Your task to perform on an android device: Open Yahoo.com Image 0: 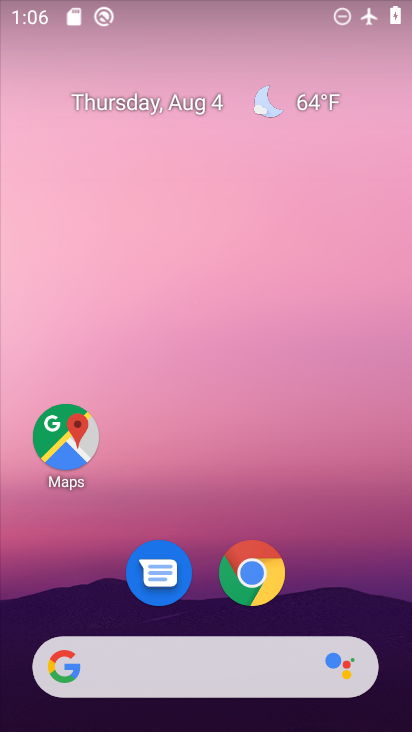
Step 0: drag from (323, 582) to (292, 170)
Your task to perform on an android device: Open Yahoo.com Image 1: 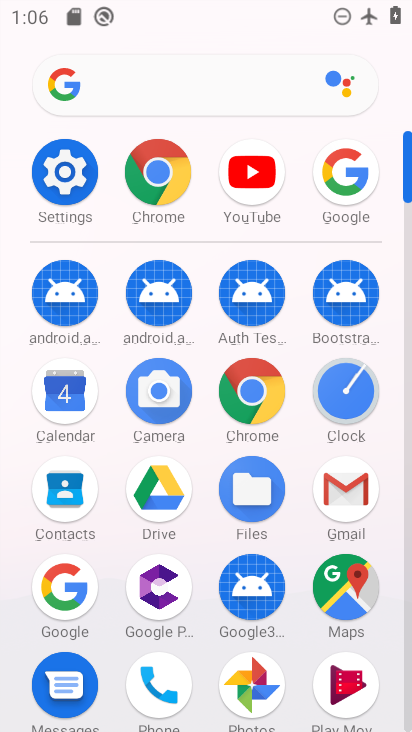
Step 1: click (253, 390)
Your task to perform on an android device: Open Yahoo.com Image 2: 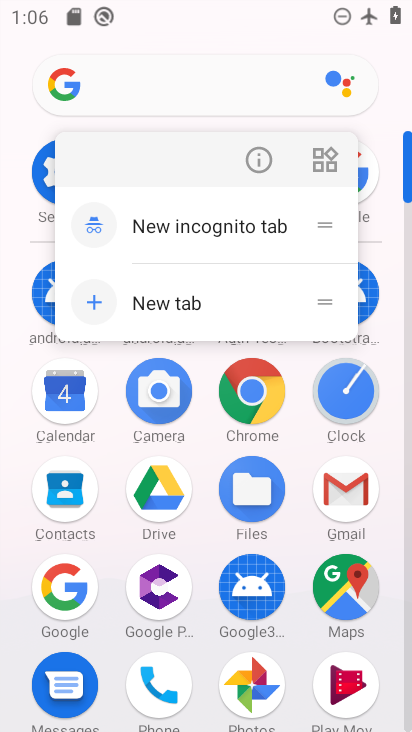
Step 2: click (253, 390)
Your task to perform on an android device: Open Yahoo.com Image 3: 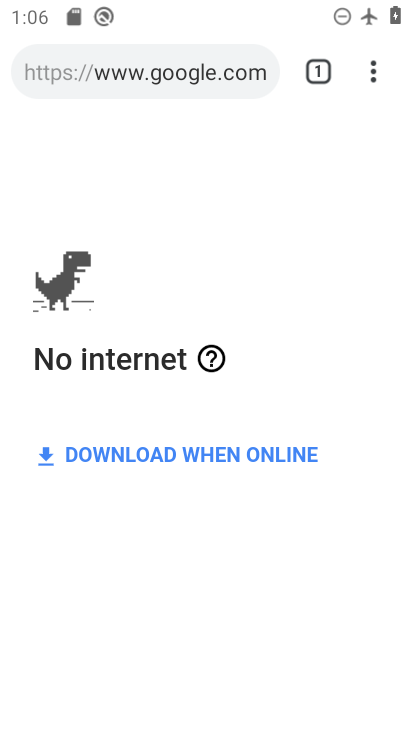
Step 3: click (233, 80)
Your task to perform on an android device: Open Yahoo.com Image 4: 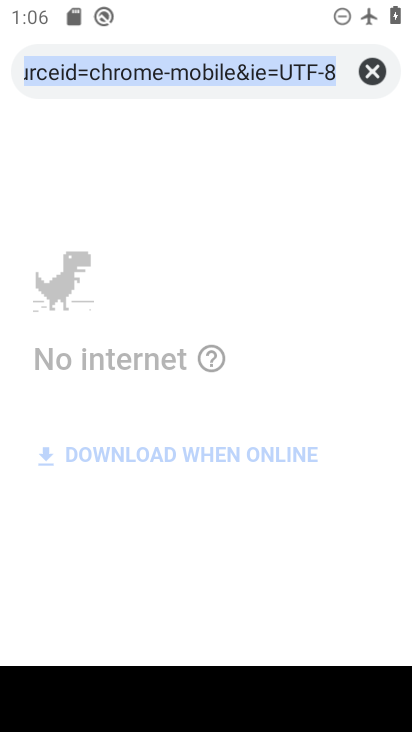
Step 4: type "yahoo.com"
Your task to perform on an android device: Open Yahoo.com Image 5: 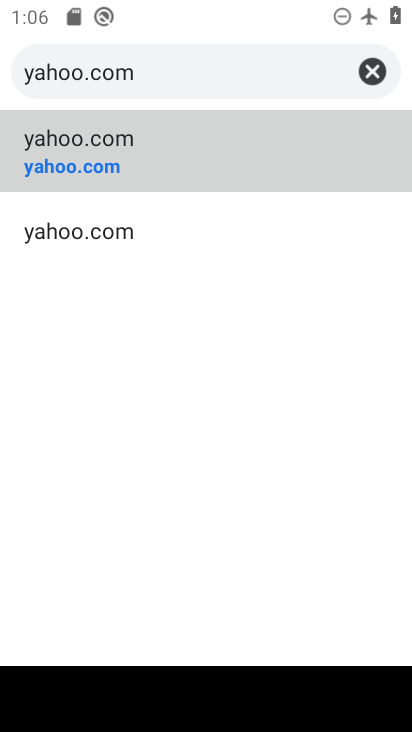
Step 5: click (83, 155)
Your task to perform on an android device: Open Yahoo.com Image 6: 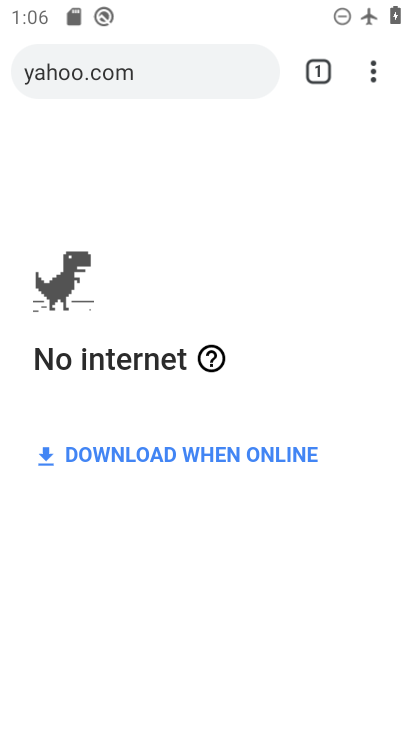
Step 6: task complete